Your task to perform on an android device: toggle wifi Image 0: 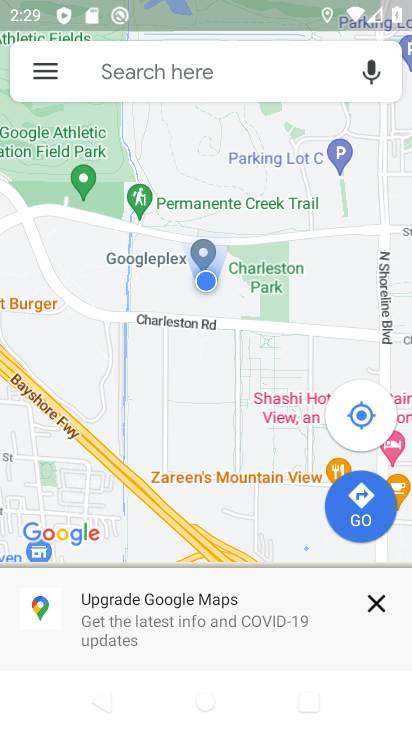
Step 0: press home button
Your task to perform on an android device: toggle wifi Image 1: 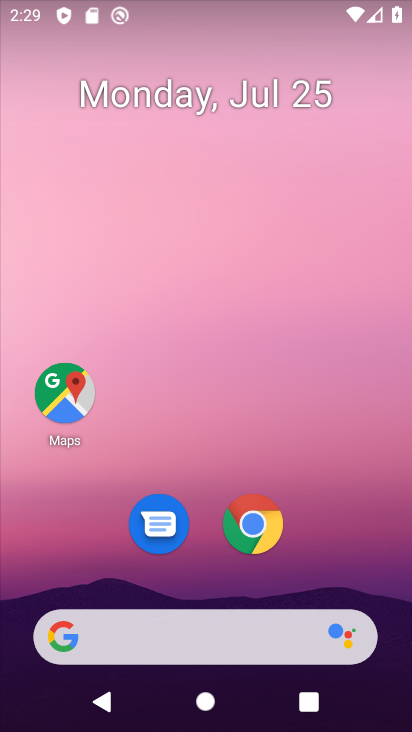
Step 1: drag from (328, 388) to (336, 76)
Your task to perform on an android device: toggle wifi Image 2: 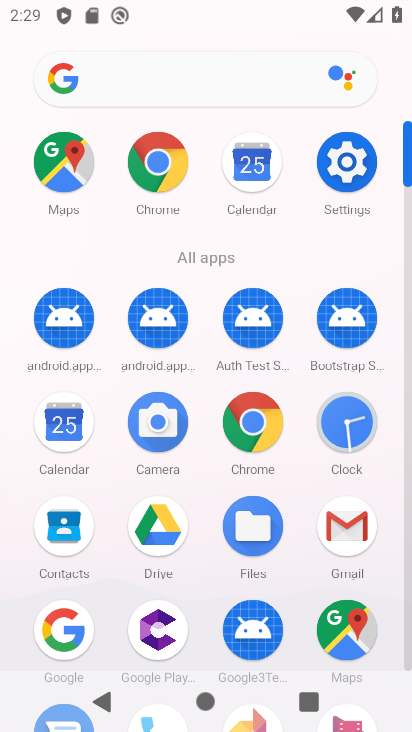
Step 2: click (350, 167)
Your task to perform on an android device: toggle wifi Image 3: 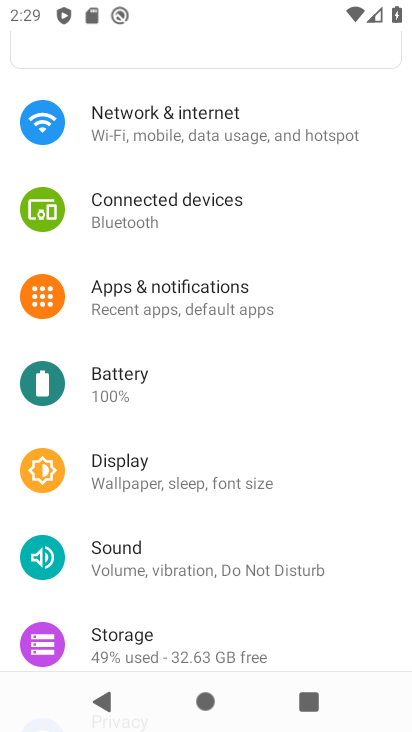
Step 3: click (226, 122)
Your task to perform on an android device: toggle wifi Image 4: 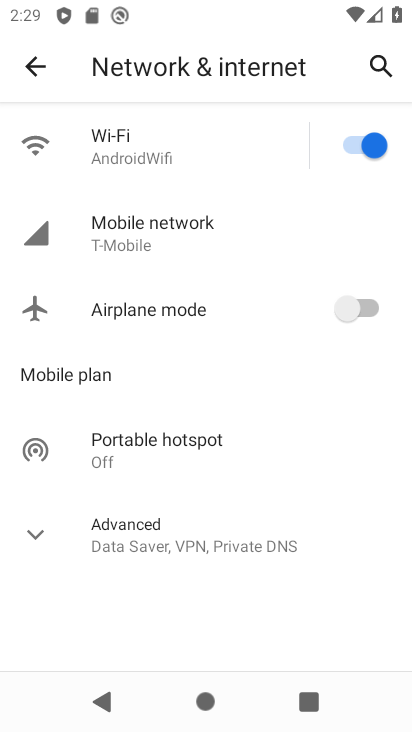
Step 4: click (359, 140)
Your task to perform on an android device: toggle wifi Image 5: 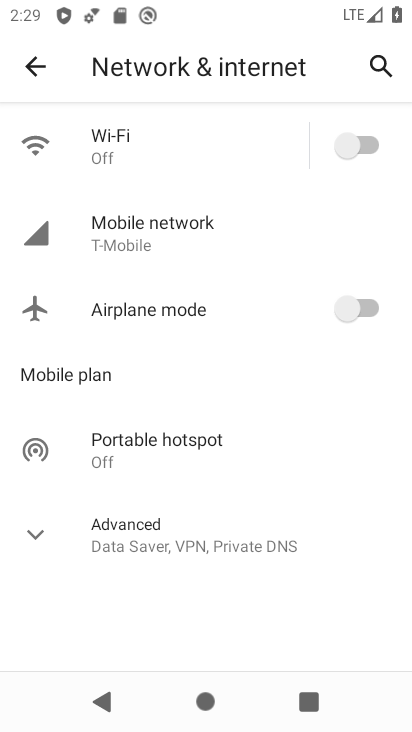
Step 5: task complete